Your task to perform on an android device: Open display settings Image 0: 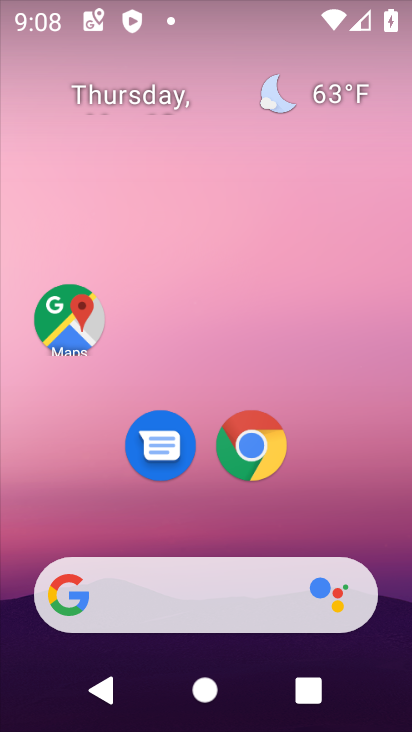
Step 0: drag from (202, 506) to (264, 48)
Your task to perform on an android device: Open display settings Image 1: 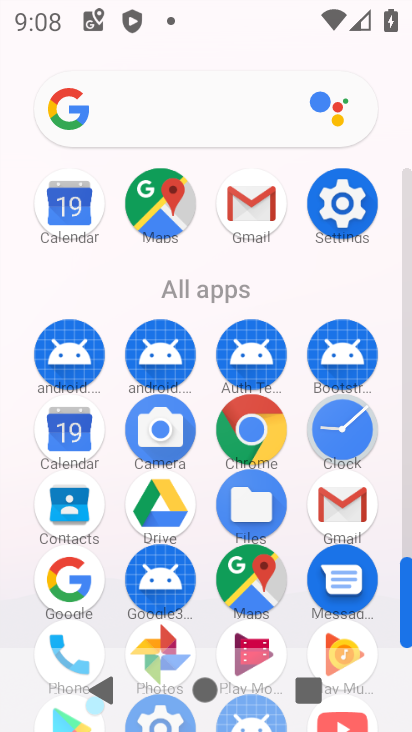
Step 1: click (353, 207)
Your task to perform on an android device: Open display settings Image 2: 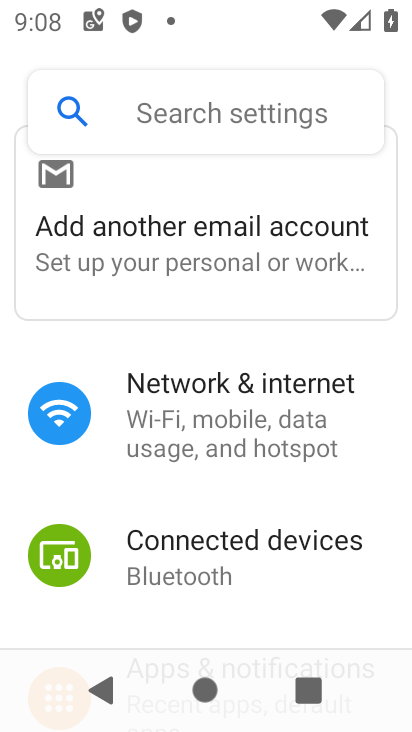
Step 2: drag from (235, 530) to (257, 185)
Your task to perform on an android device: Open display settings Image 3: 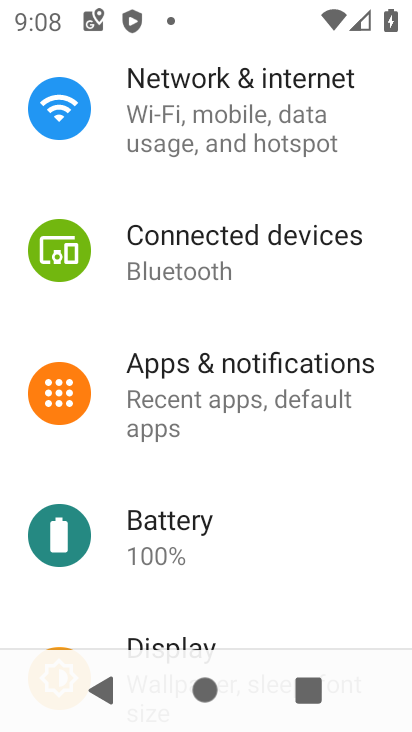
Step 3: drag from (216, 520) to (259, 79)
Your task to perform on an android device: Open display settings Image 4: 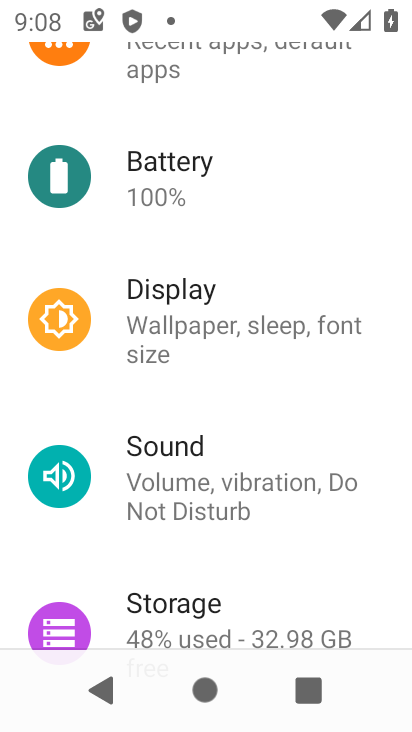
Step 4: click (212, 304)
Your task to perform on an android device: Open display settings Image 5: 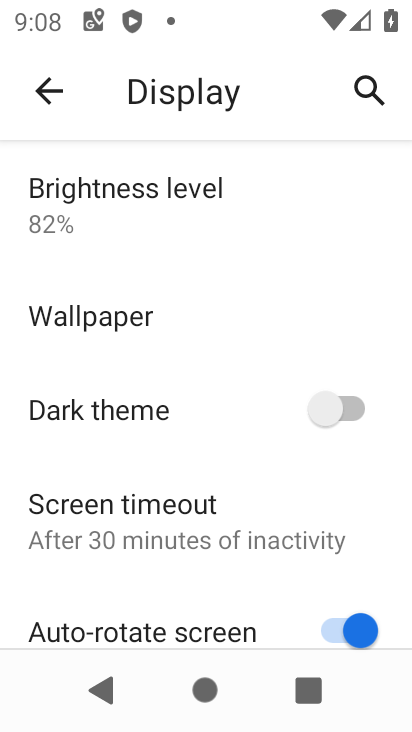
Step 5: task complete